Your task to perform on an android device: add a contact Image 0: 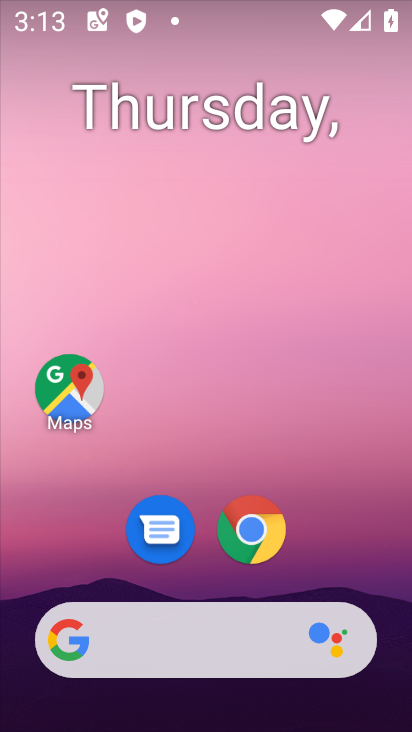
Step 0: drag from (347, 524) to (291, 56)
Your task to perform on an android device: add a contact Image 1: 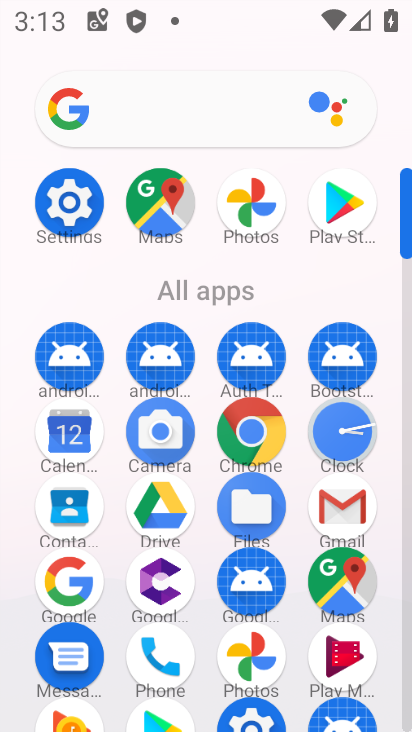
Step 1: drag from (112, 484) to (117, 273)
Your task to perform on an android device: add a contact Image 2: 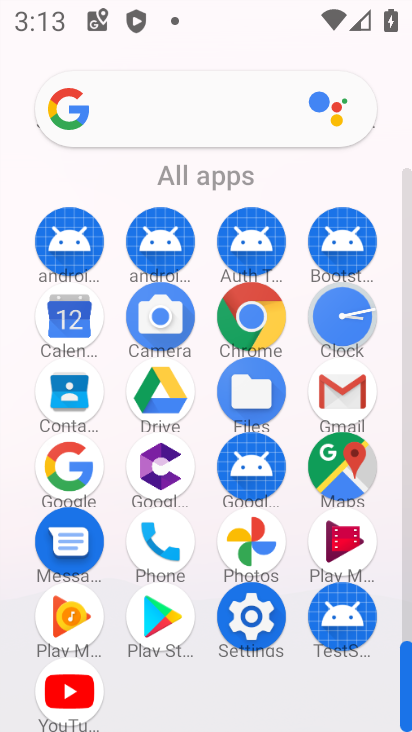
Step 2: click (64, 396)
Your task to perform on an android device: add a contact Image 3: 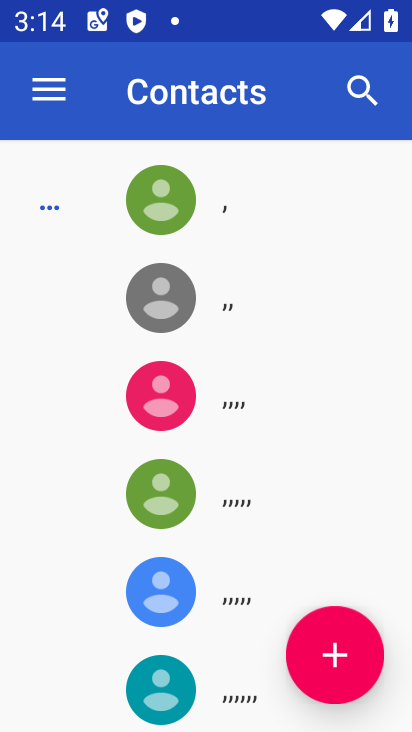
Step 3: click (334, 653)
Your task to perform on an android device: add a contact Image 4: 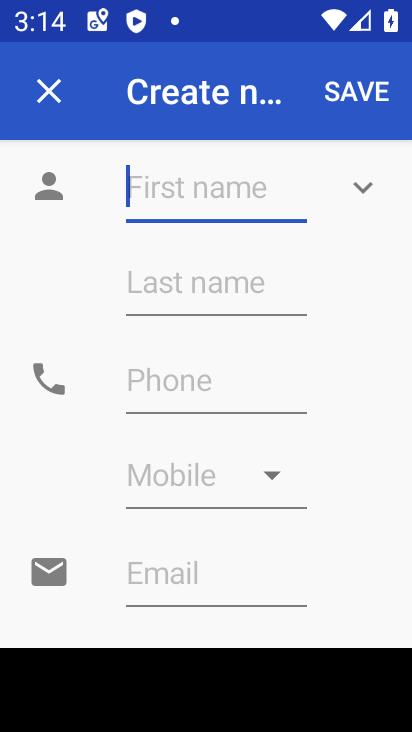
Step 4: click (240, 200)
Your task to perform on an android device: add a contact Image 5: 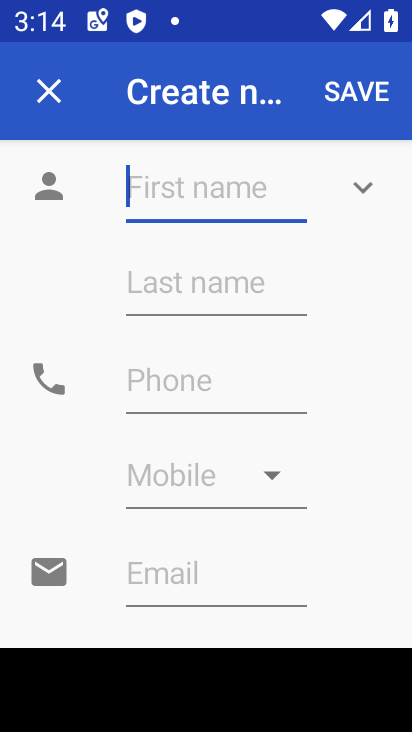
Step 5: type "Subhramaniyam"
Your task to perform on an android device: add a contact Image 6: 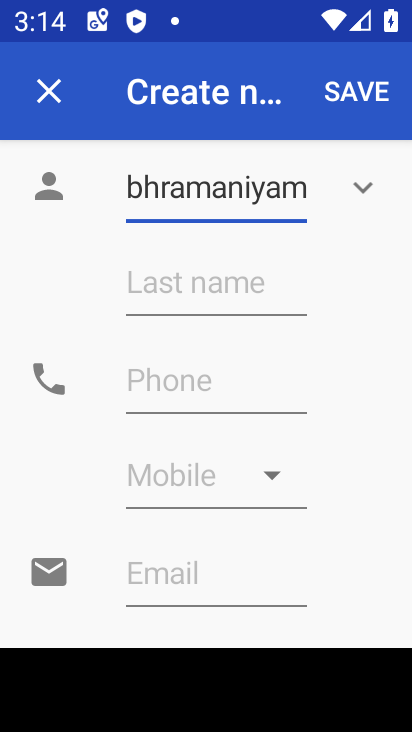
Step 6: click (196, 291)
Your task to perform on an android device: add a contact Image 7: 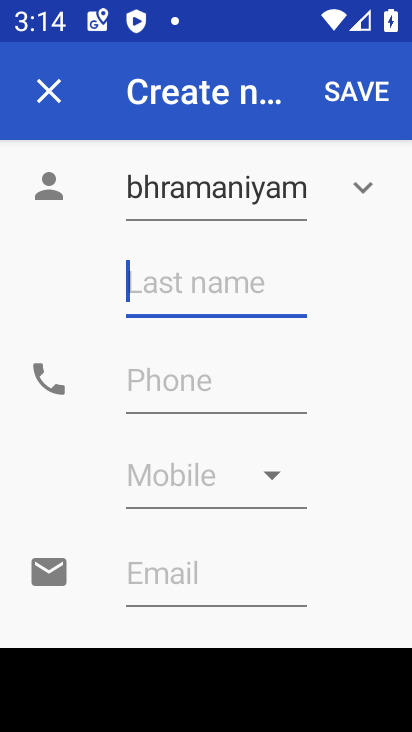
Step 7: type "swami"
Your task to perform on an android device: add a contact Image 8: 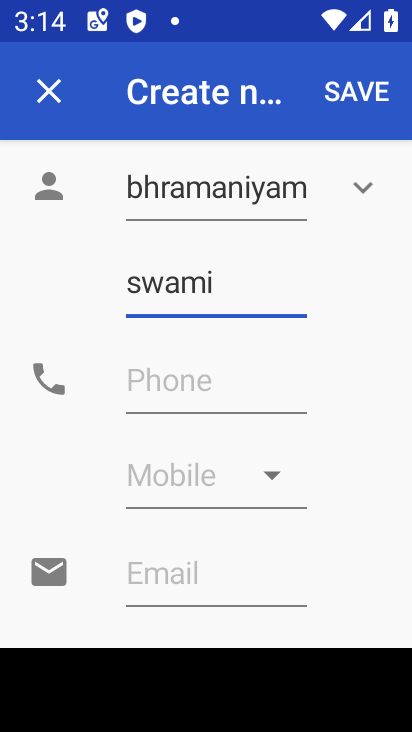
Step 8: click (221, 392)
Your task to perform on an android device: add a contact Image 9: 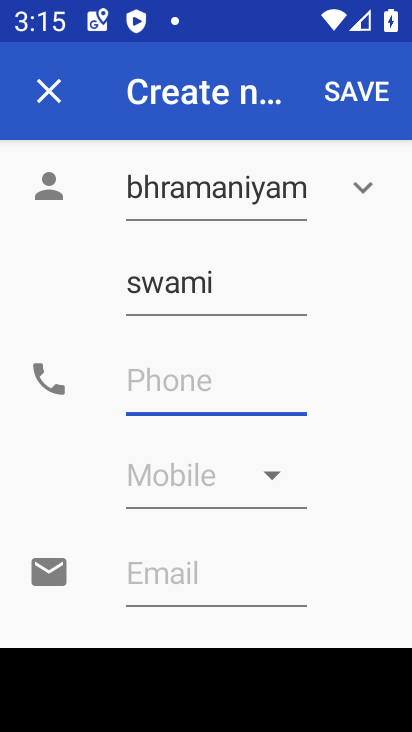
Step 9: type "099887711223344"
Your task to perform on an android device: add a contact Image 10: 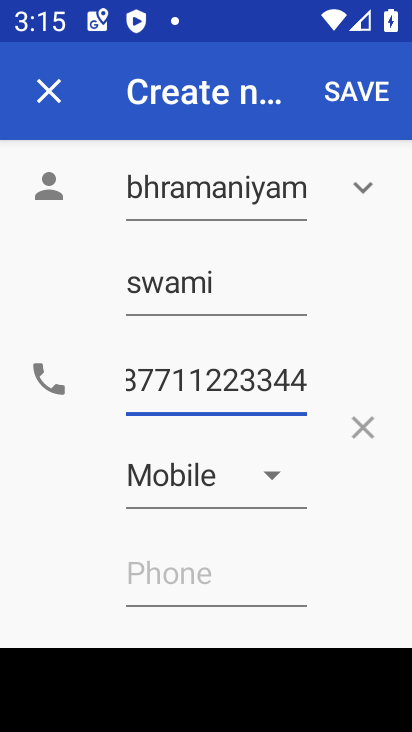
Step 10: click (367, 95)
Your task to perform on an android device: add a contact Image 11: 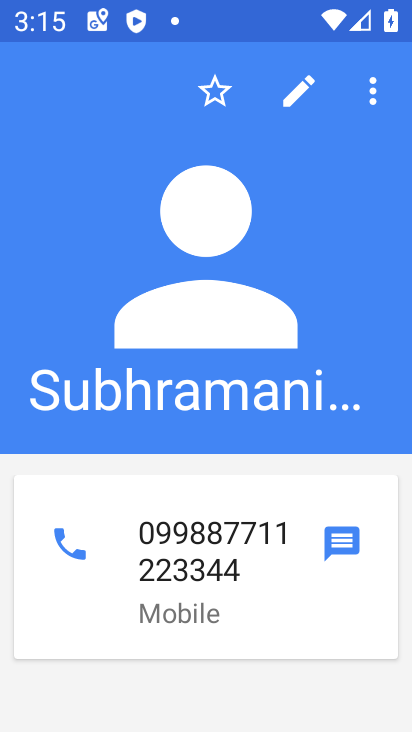
Step 11: task complete